Your task to perform on an android device: Go to Yahoo.com Image 0: 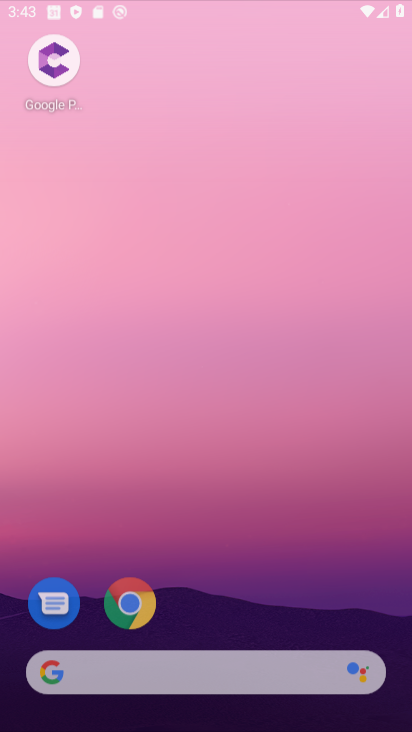
Step 0: click (239, 14)
Your task to perform on an android device: Go to Yahoo.com Image 1: 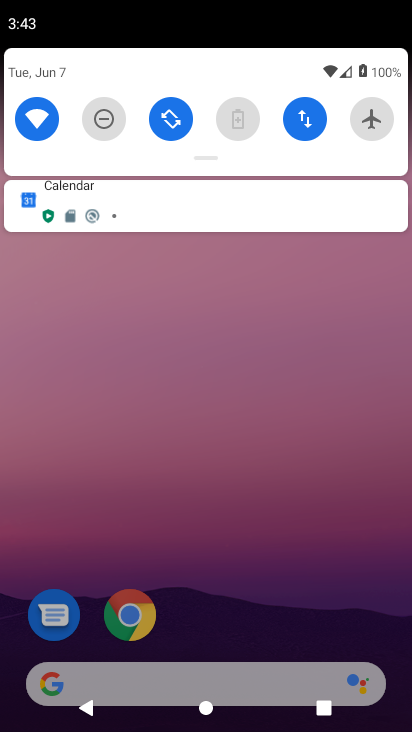
Step 1: drag from (138, 160) to (9, 361)
Your task to perform on an android device: Go to Yahoo.com Image 2: 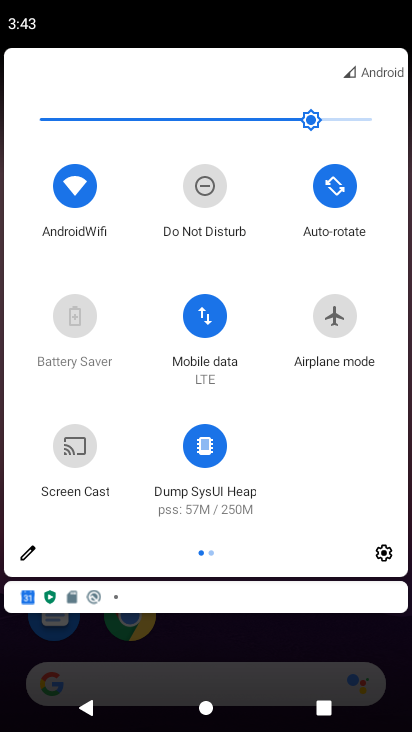
Step 2: click (376, 664)
Your task to perform on an android device: Go to Yahoo.com Image 3: 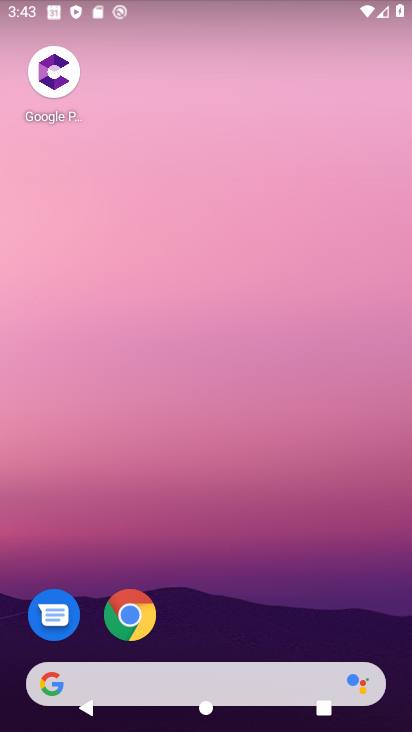
Step 3: click (373, 649)
Your task to perform on an android device: Go to Yahoo.com Image 4: 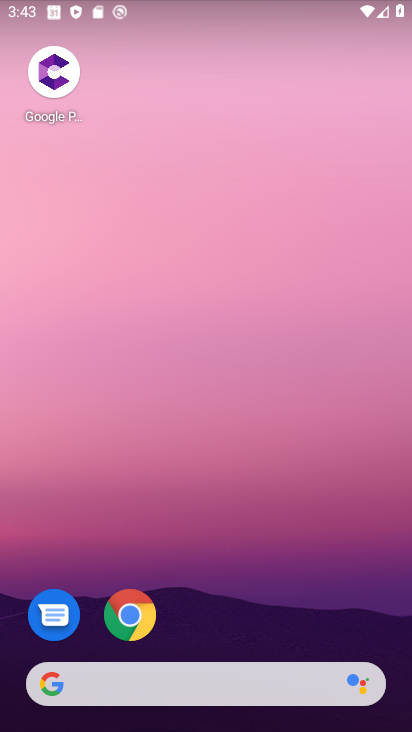
Step 4: drag from (235, 631) to (258, 39)
Your task to perform on an android device: Go to Yahoo.com Image 5: 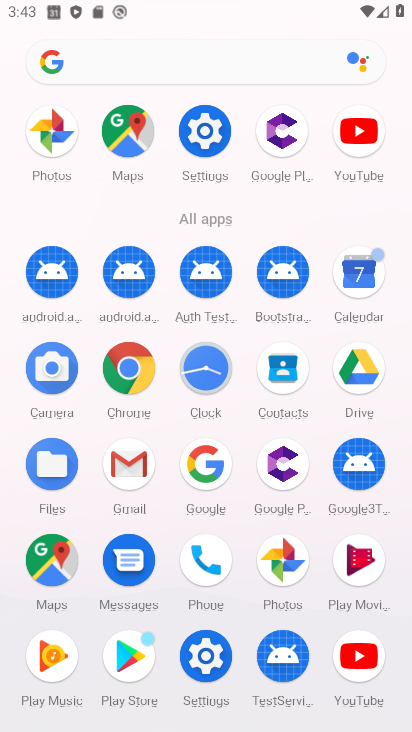
Step 5: click (122, 371)
Your task to perform on an android device: Go to Yahoo.com Image 6: 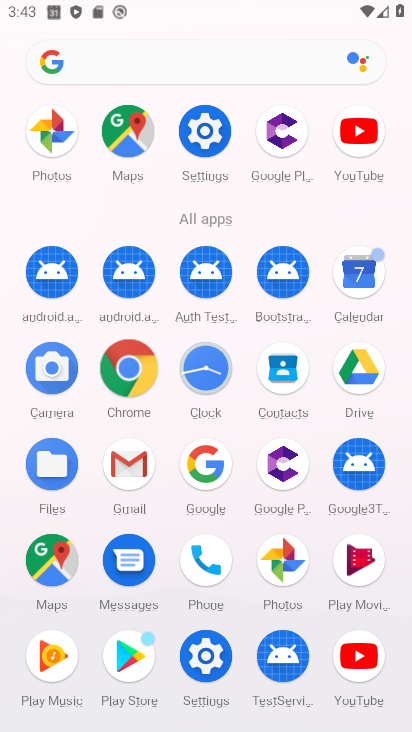
Step 6: click (122, 368)
Your task to perform on an android device: Go to Yahoo.com Image 7: 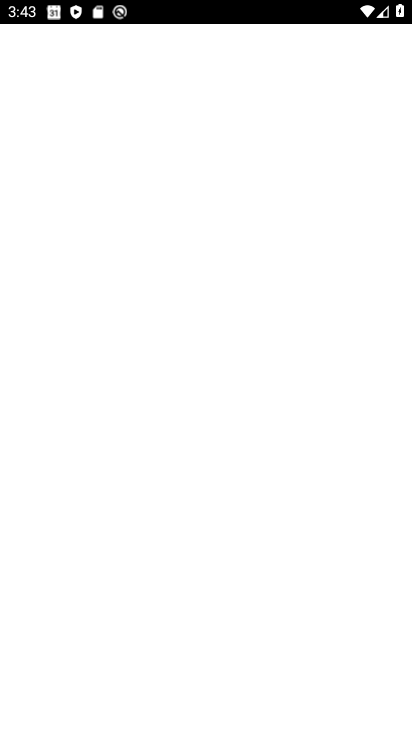
Step 7: click (126, 354)
Your task to perform on an android device: Go to Yahoo.com Image 8: 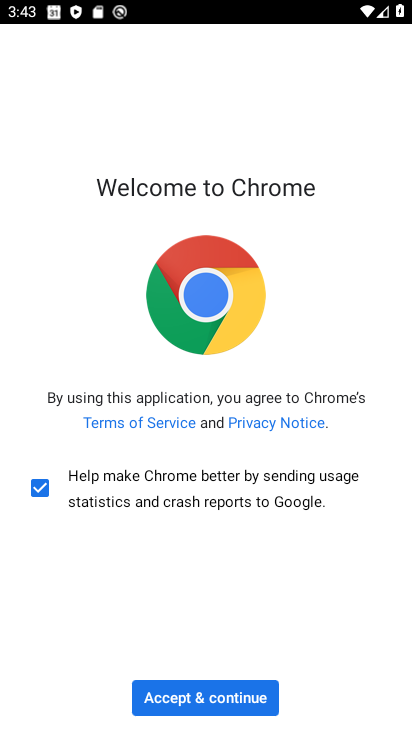
Step 8: click (210, 692)
Your task to perform on an android device: Go to Yahoo.com Image 9: 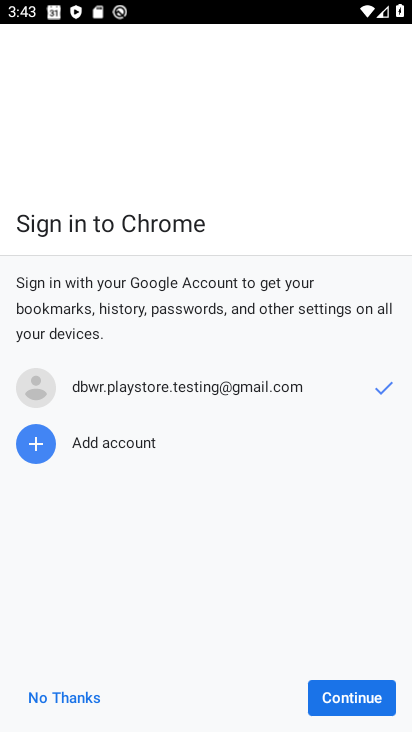
Step 9: click (210, 693)
Your task to perform on an android device: Go to Yahoo.com Image 10: 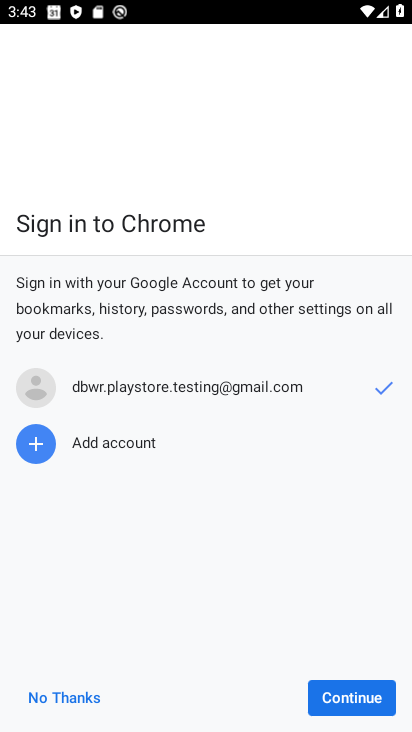
Step 10: click (211, 694)
Your task to perform on an android device: Go to Yahoo.com Image 11: 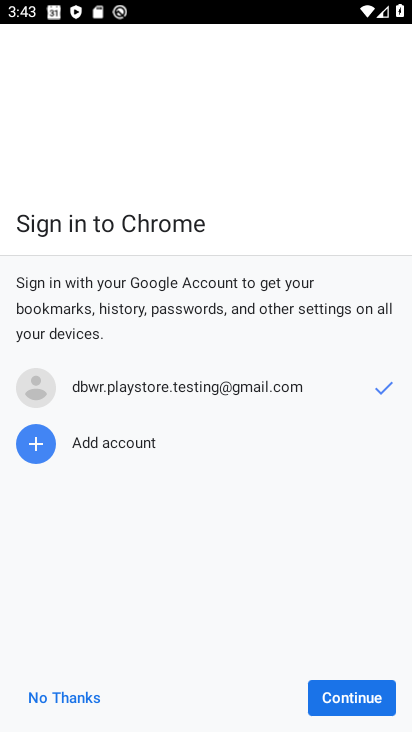
Step 11: click (362, 711)
Your task to perform on an android device: Go to Yahoo.com Image 12: 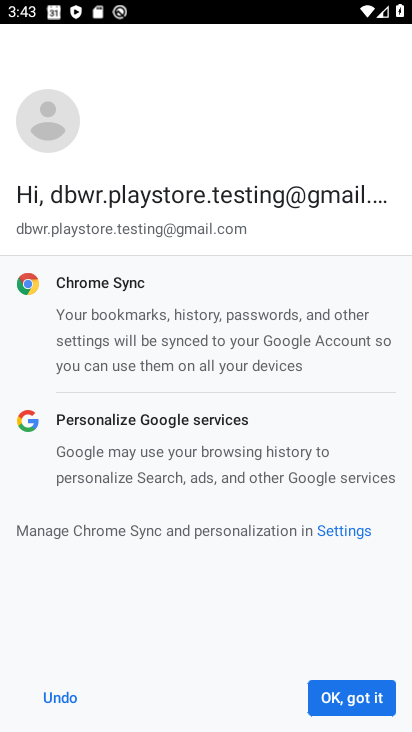
Step 12: click (361, 711)
Your task to perform on an android device: Go to Yahoo.com Image 13: 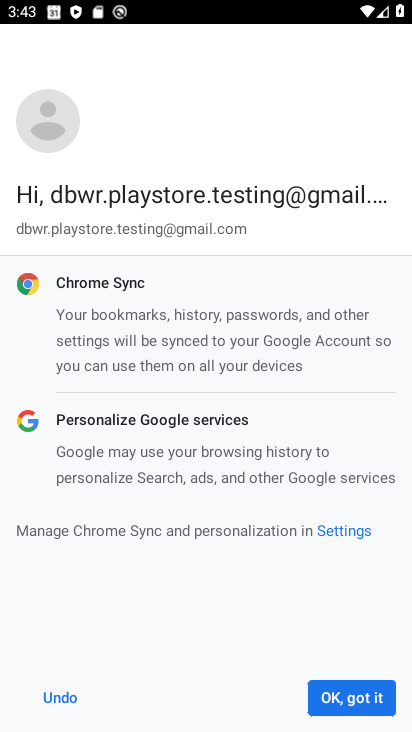
Step 13: click (361, 711)
Your task to perform on an android device: Go to Yahoo.com Image 14: 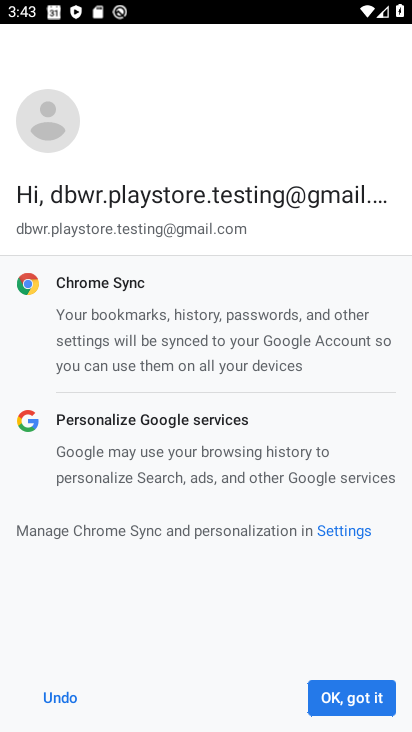
Step 14: click (361, 711)
Your task to perform on an android device: Go to Yahoo.com Image 15: 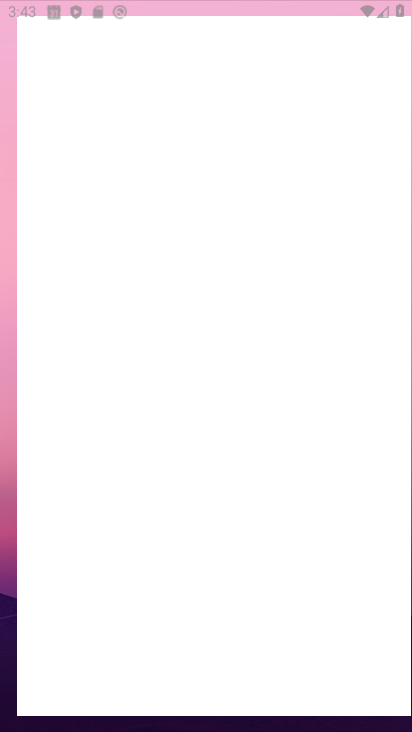
Step 15: click (356, 685)
Your task to perform on an android device: Go to Yahoo.com Image 16: 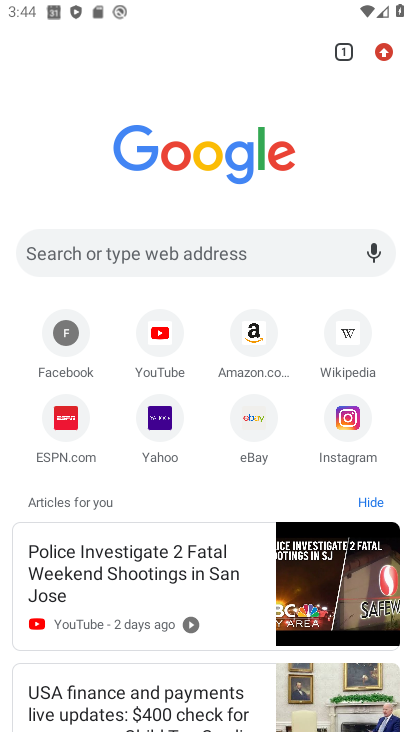
Step 16: click (153, 419)
Your task to perform on an android device: Go to Yahoo.com Image 17: 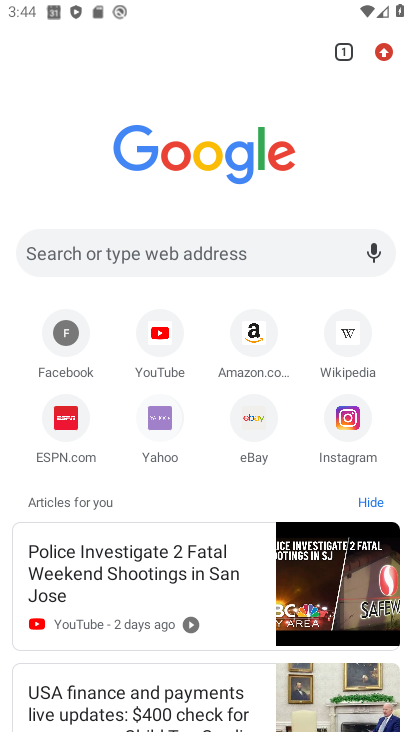
Step 17: click (153, 419)
Your task to perform on an android device: Go to Yahoo.com Image 18: 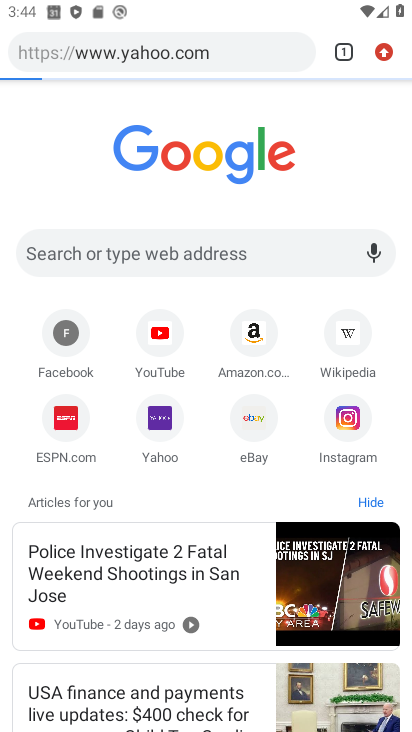
Step 18: click (150, 418)
Your task to perform on an android device: Go to Yahoo.com Image 19: 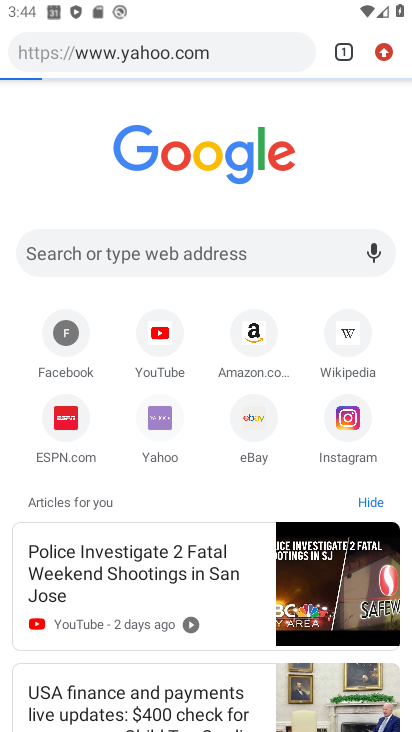
Step 19: click (143, 414)
Your task to perform on an android device: Go to Yahoo.com Image 20: 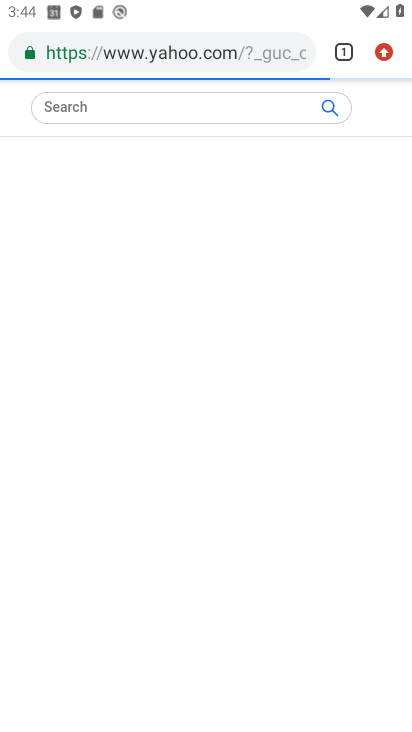
Step 20: task complete